Your task to perform on an android device: Search for the best rated 4K TV on Best Buy. Image 0: 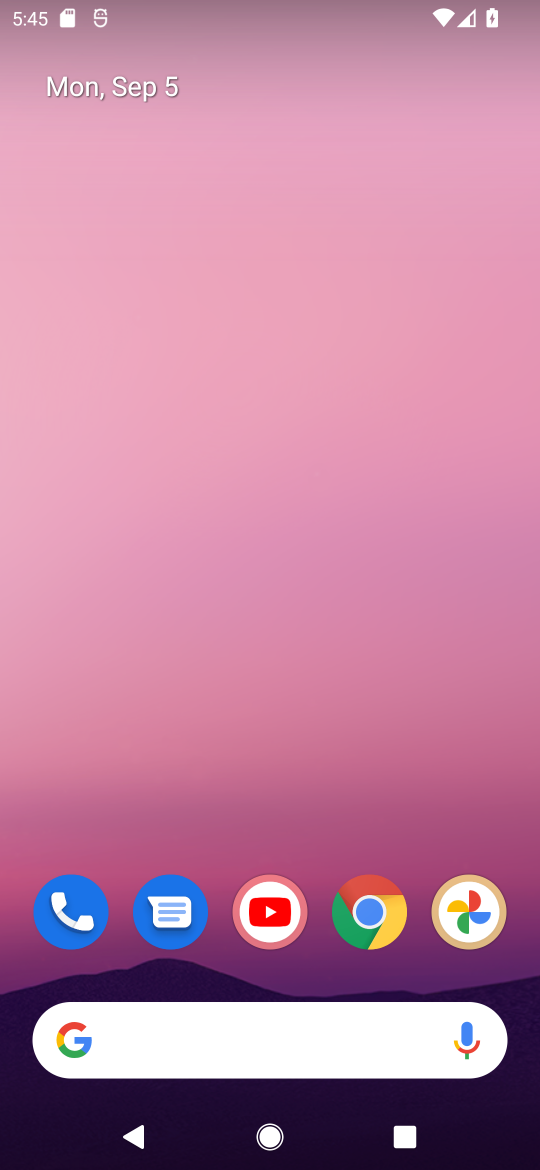
Step 0: click (362, 919)
Your task to perform on an android device: Search for the best rated 4K TV on Best Buy. Image 1: 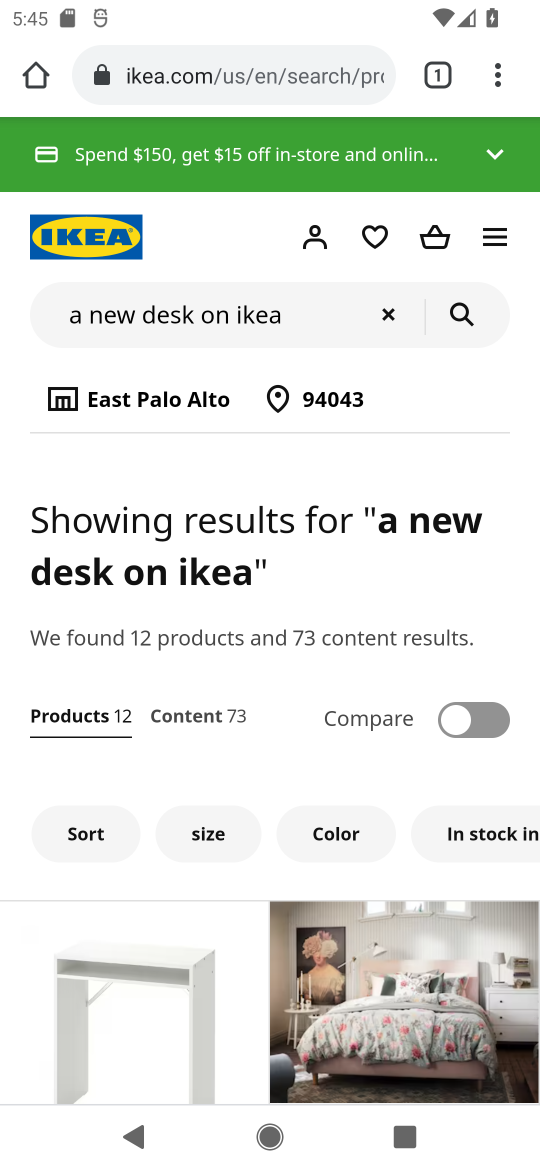
Step 1: click (290, 67)
Your task to perform on an android device: Search for the best rated 4K TV on Best Buy. Image 2: 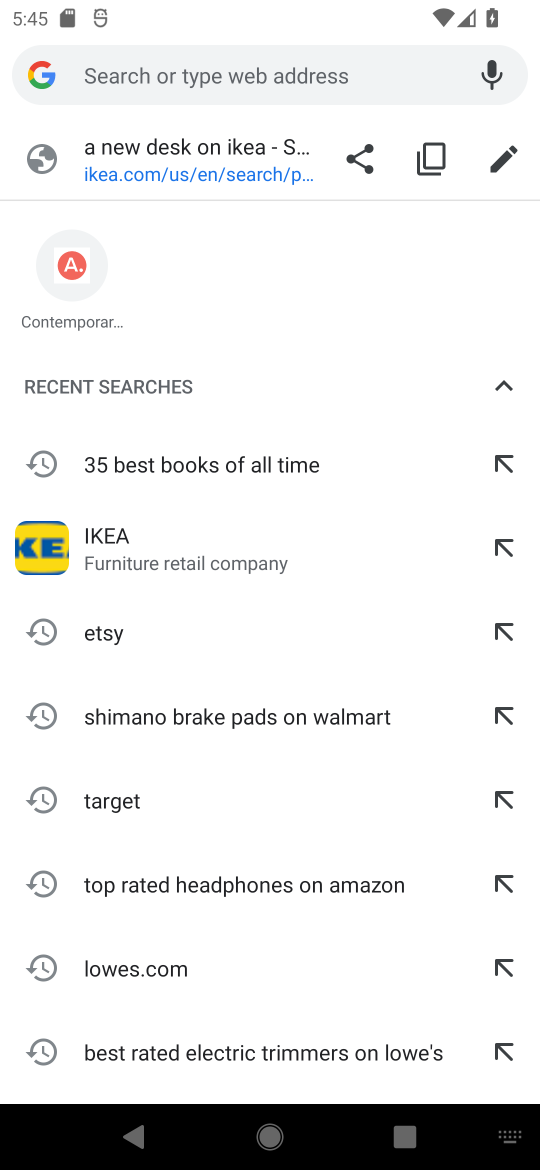
Step 2: type "Bestbuy"
Your task to perform on an android device: Search for the best rated 4K TV on Best Buy. Image 3: 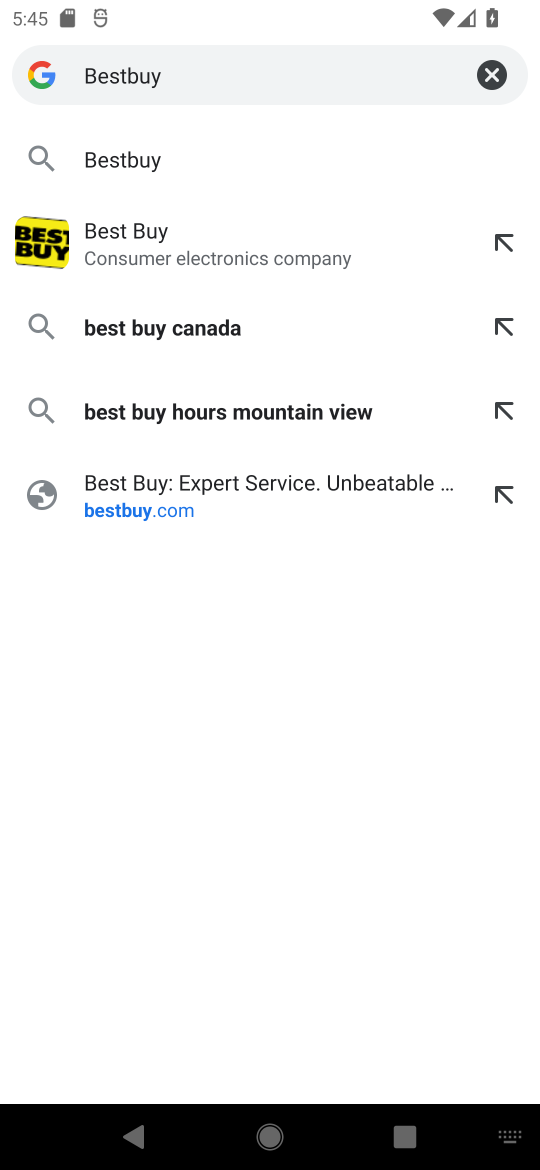
Step 3: click (149, 154)
Your task to perform on an android device: Search for the best rated 4K TV on Best Buy. Image 4: 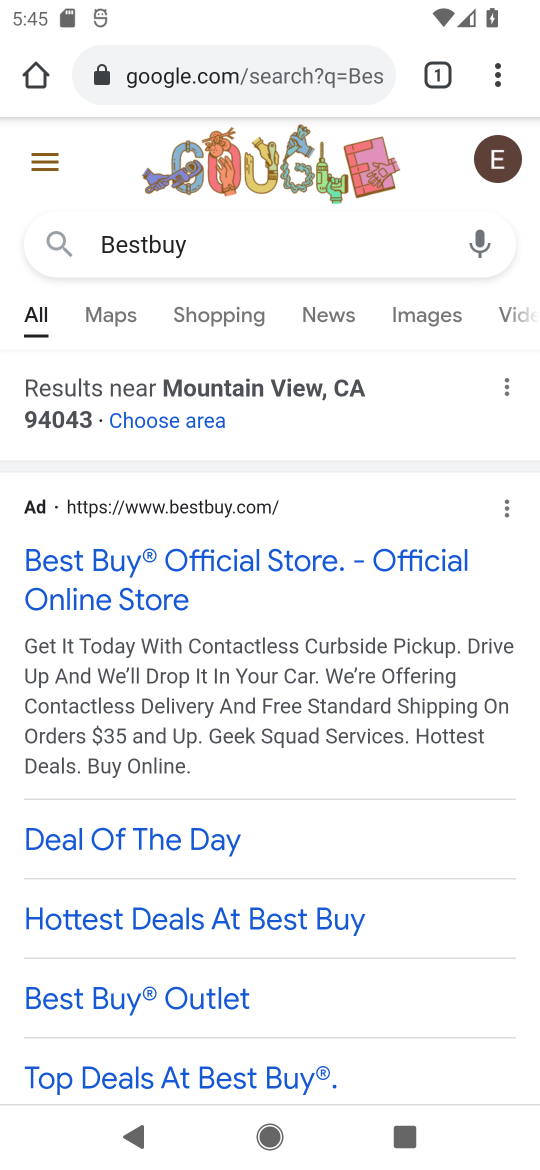
Step 4: click (138, 600)
Your task to perform on an android device: Search for the best rated 4K TV on Best Buy. Image 5: 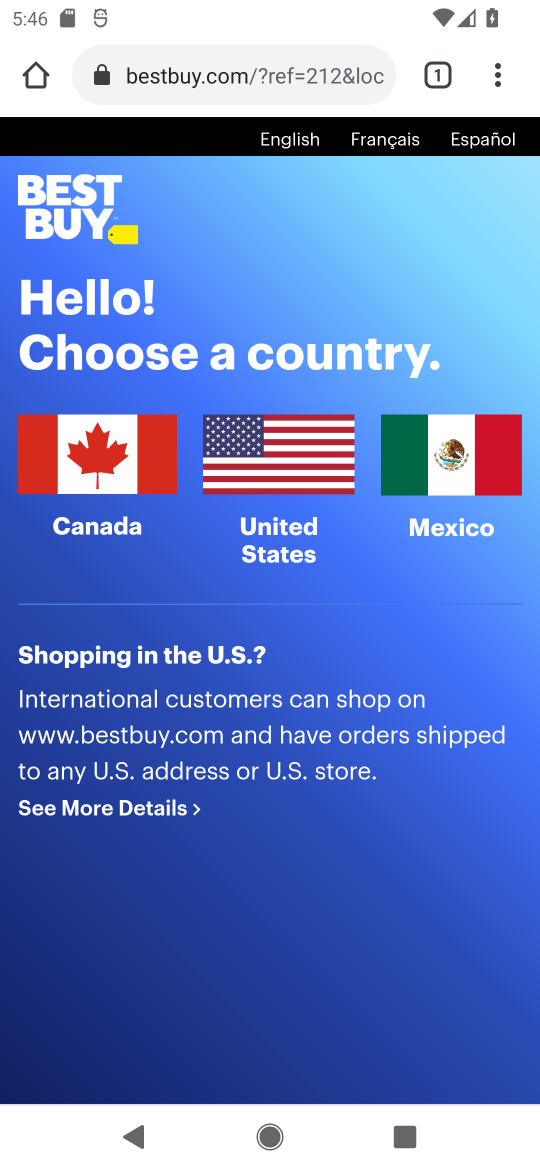
Step 5: click (262, 480)
Your task to perform on an android device: Search for the best rated 4K TV on Best Buy. Image 6: 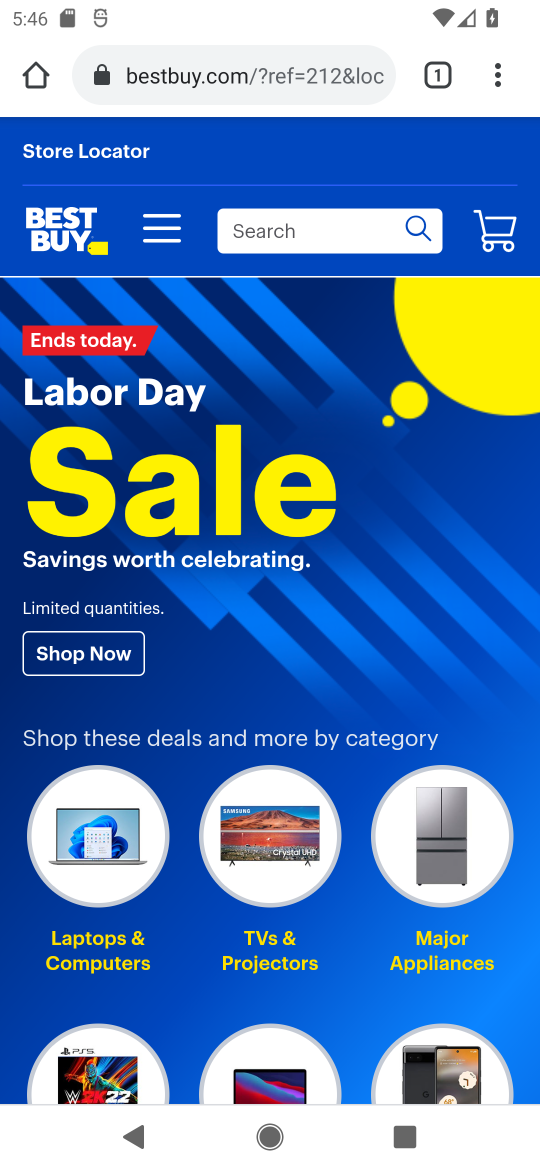
Step 6: click (288, 237)
Your task to perform on an android device: Search for the best rated 4K TV on Best Buy. Image 7: 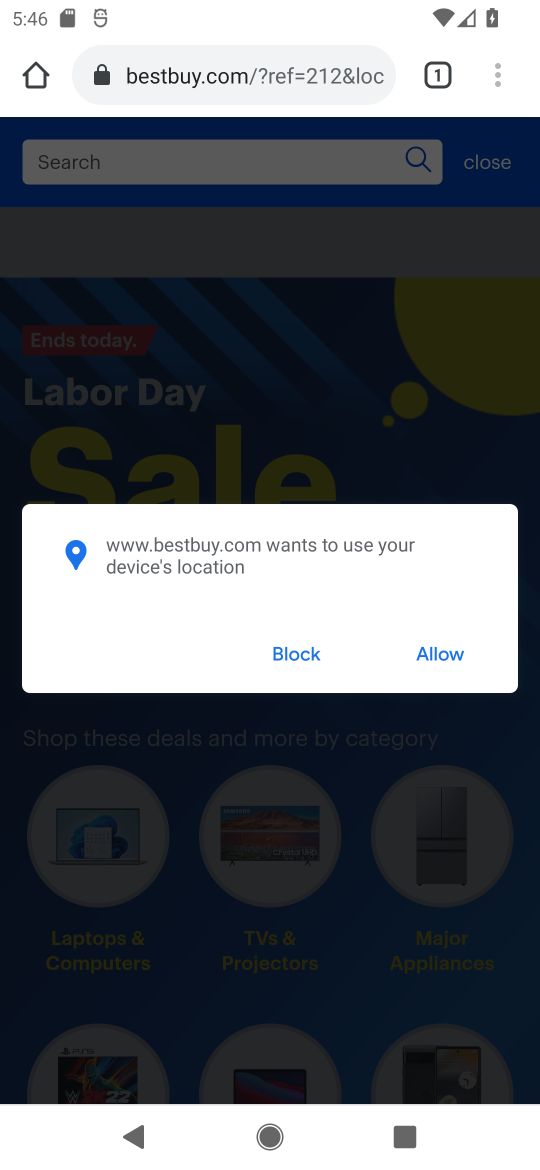
Step 7: click (435, 652)
Your task to perform on an android device: Search for the best rated 4K TV on Best Buy. Image 8: 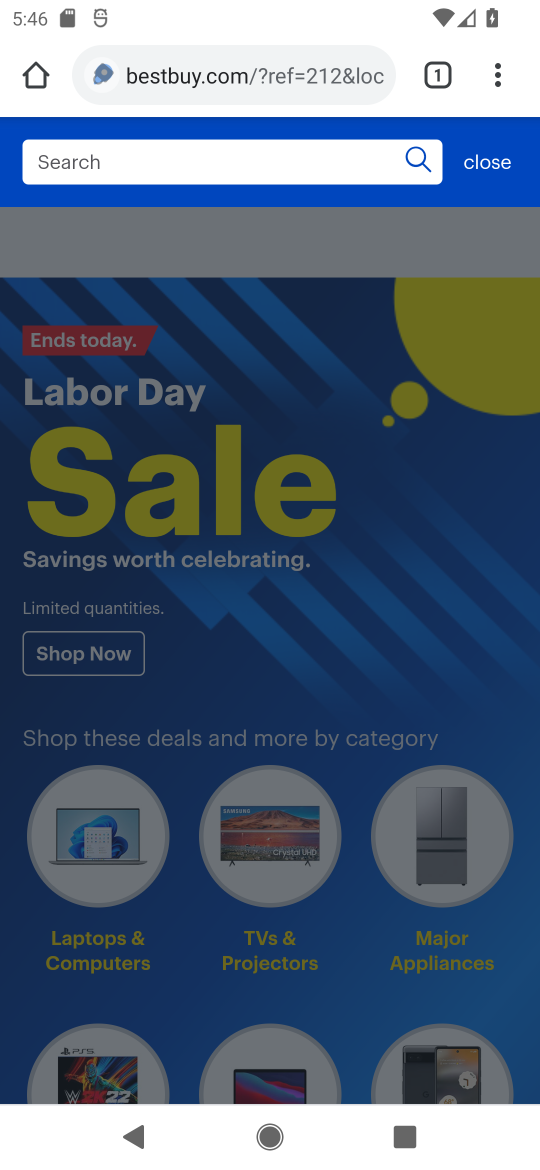
Step 8: click (260, 157)
Your task to perform on an android device: Search for the best rated 4K TV on Best Buy. Image 9: 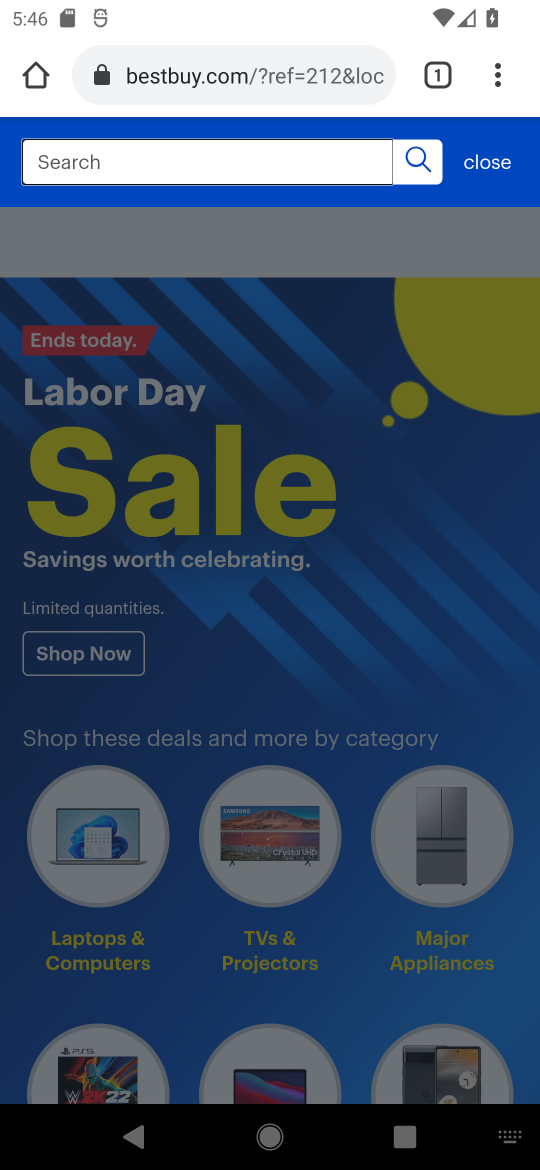
Step 9: type "the best rated 4K TV"
Your task to perform on an android device: Search for the best rated 4K TV on Best Buy. Image 10: 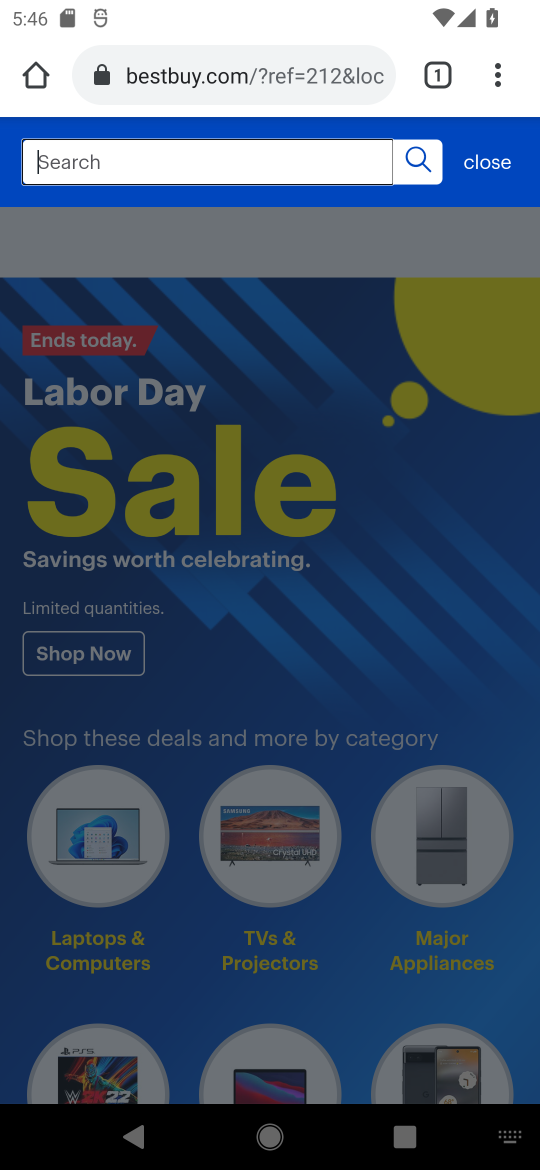
Step 10: click (170, 157)
Your task to perform on an android device: Search for the best rated 4K TV on Best Buy. Image 11: 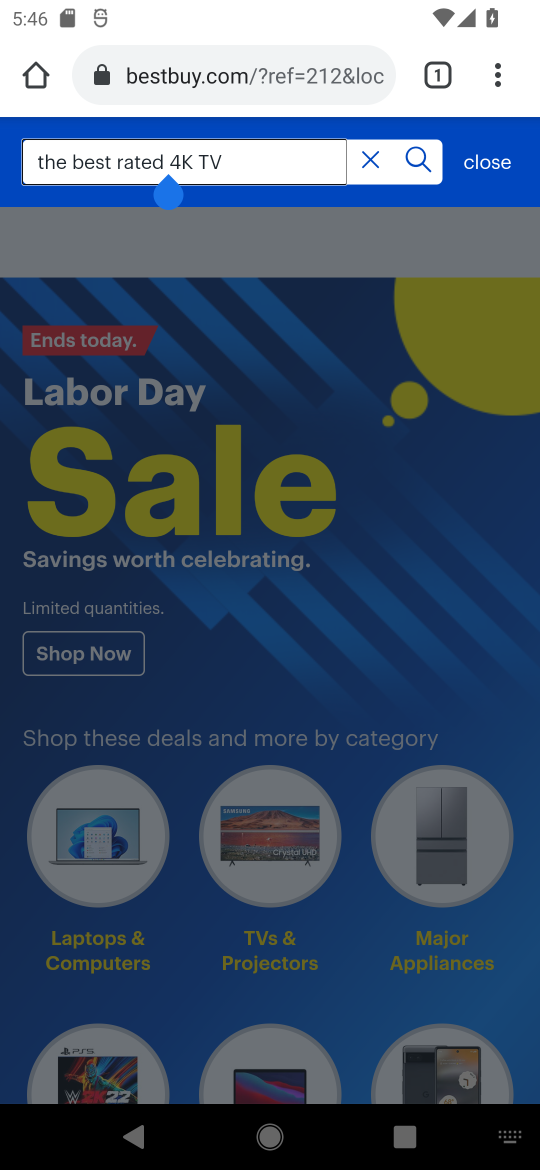
Step 11: click (421, 160)
Your task to perform on an android device: Search for the best rated 4K TV on Best Buy. Image 12: 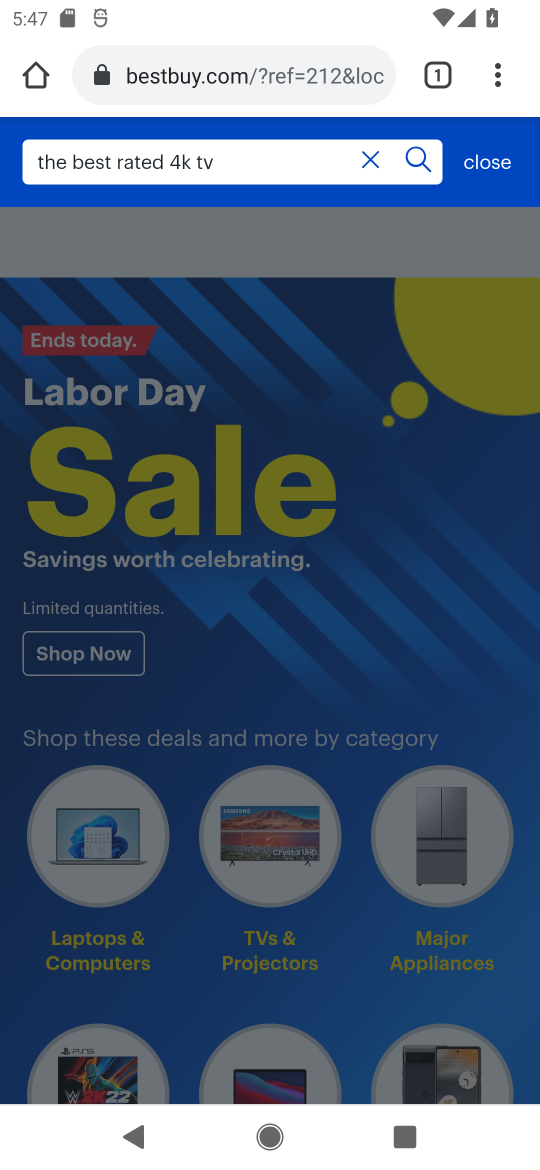
Step 12: click (421, 163)
Your task to perform on an android device: Search for the best rated 4K TV on Best Buy. Image 13: 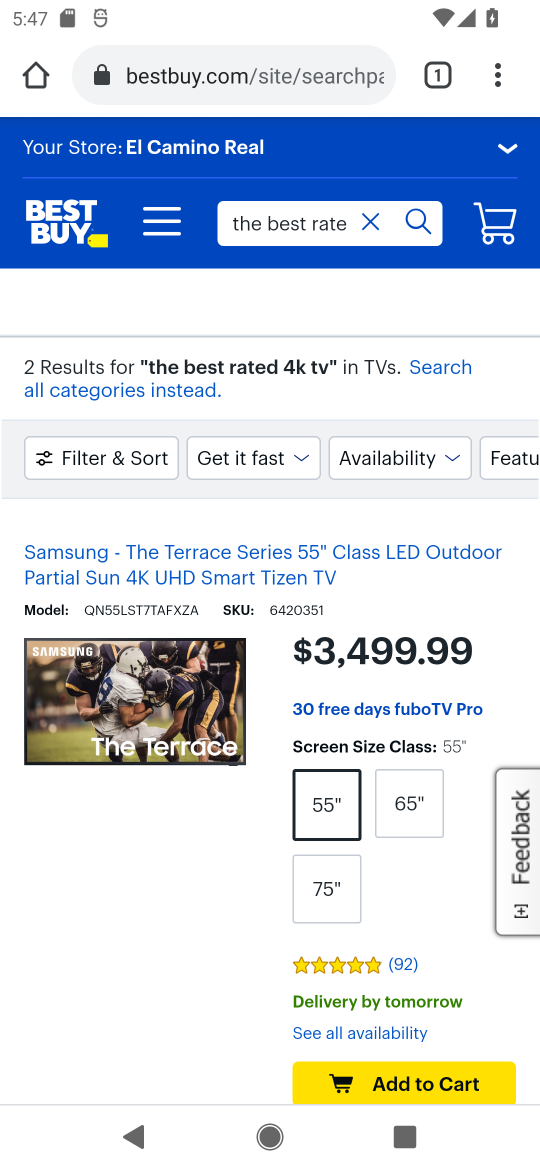
Step 13: task complete